Your task to perform on an android device: What is the news today? Image 0: 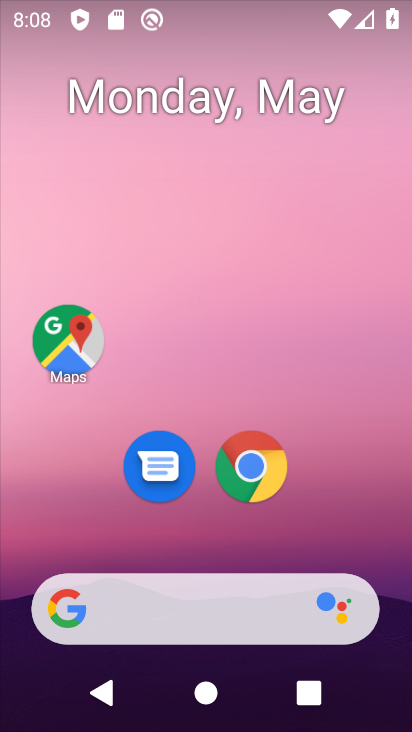
Step 0: press home button
Your task to perform on an android device: What is the news today? Image 1: 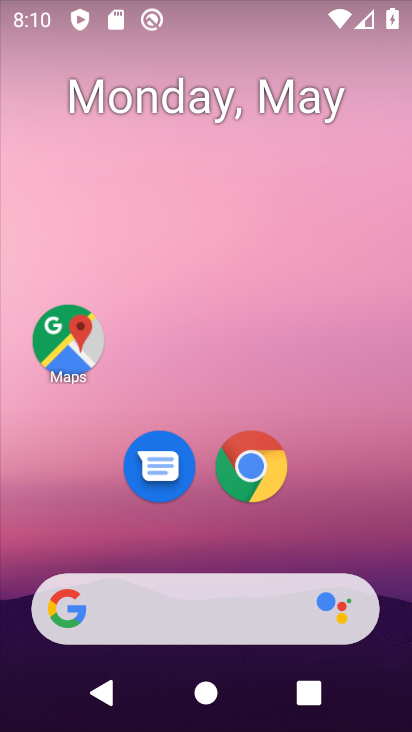
Step 1: click (191, 599)
Your task to perform on an android device: What is the news today? Image 2: 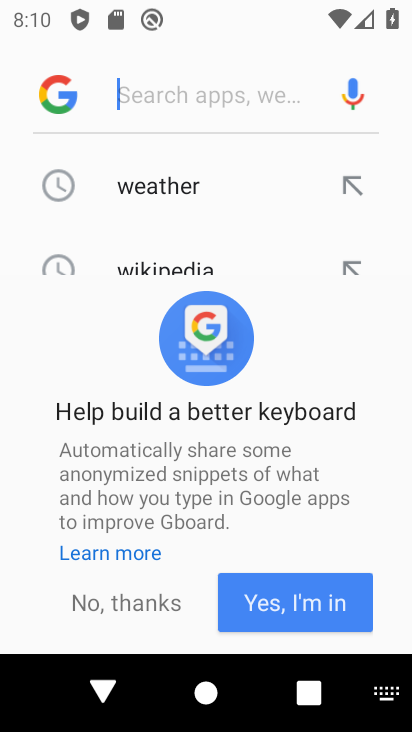
Step 2: click (135, 603)
Your task to perform on an android device: What is the news today? Image 3: 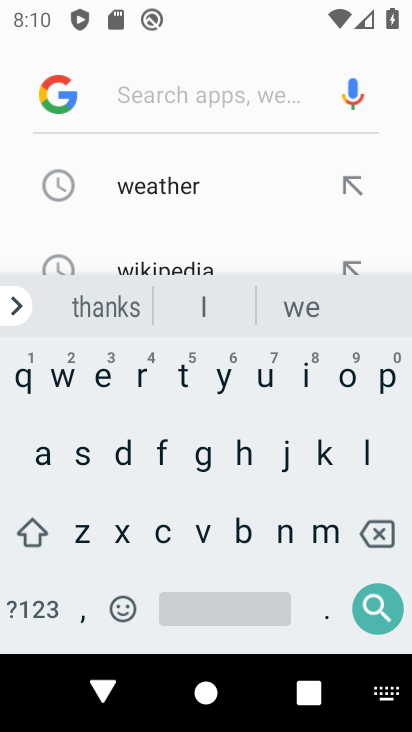
Step 3: click (284, 531)
Your task to perform on an android device: What is the news today? Image 4: 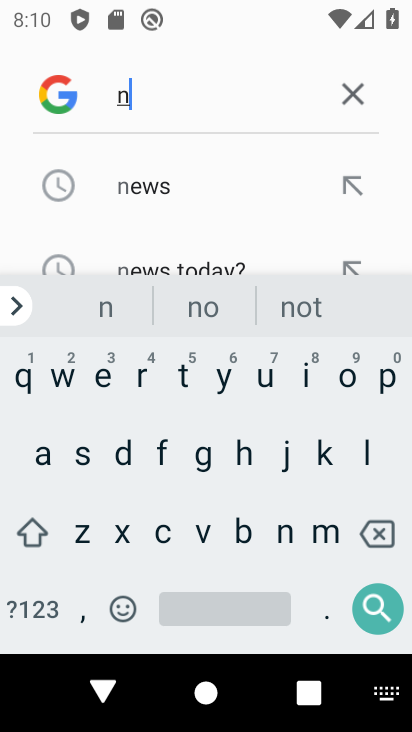
Step 4: click (204, 252)
Your task to perform on an android device: What is the news today? Image 5: 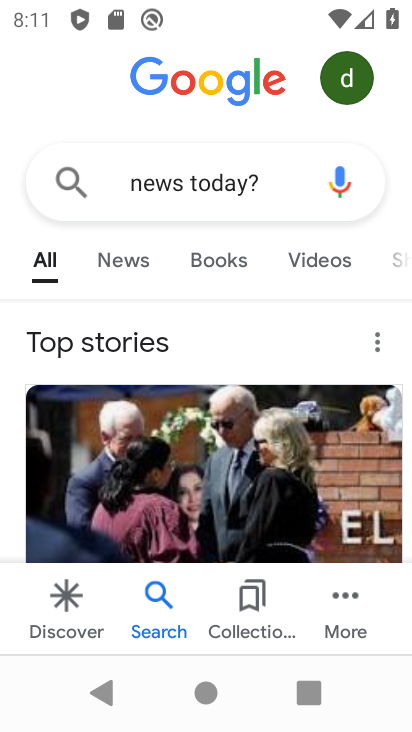
Step 5: task complete